Your task to perform on an android device: Open notification settings Image 0: 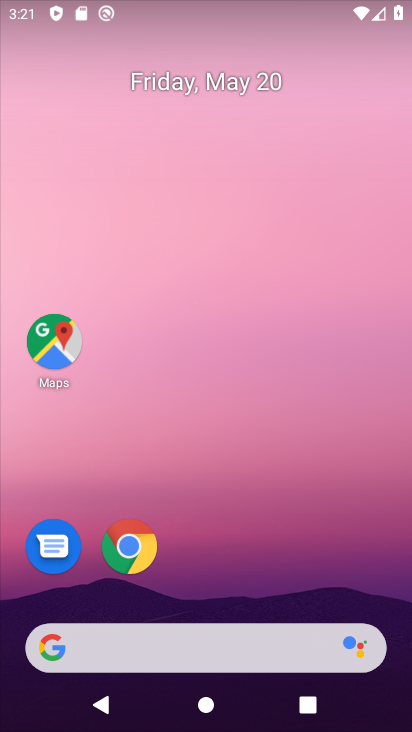
Step 0: drag from (296, 546) to (301, 115)
Your task to perform on an android device: Open notification settings Image 1: 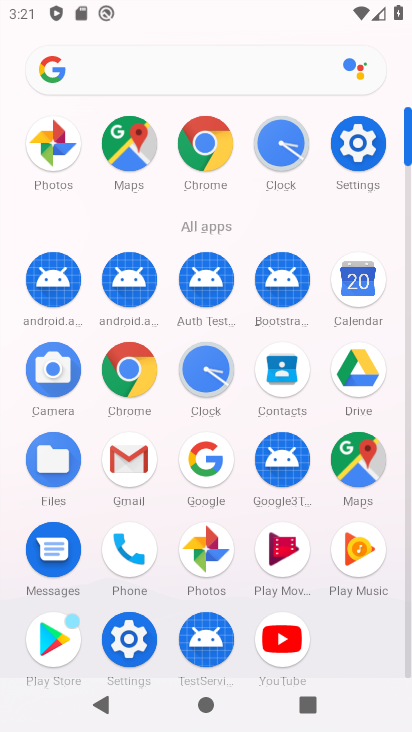
Step 1: click (364, 140)
Your task to perform on an android device: Open notification settings Image 2: 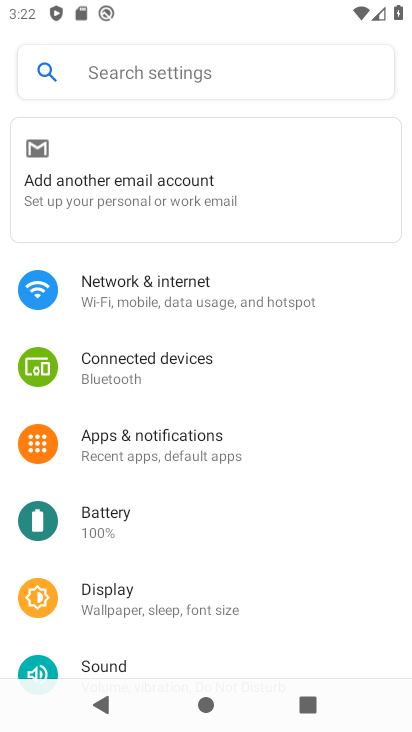
Step 2: click (185, 446)
Your task to perform on an android device: Open notification settings Image 3: 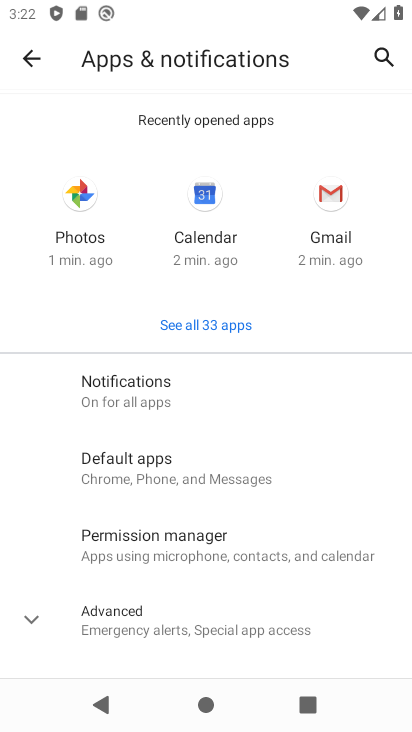
Step 3: click (187, 396)
Your task to perform on an android device: Open notification settings Image 4: 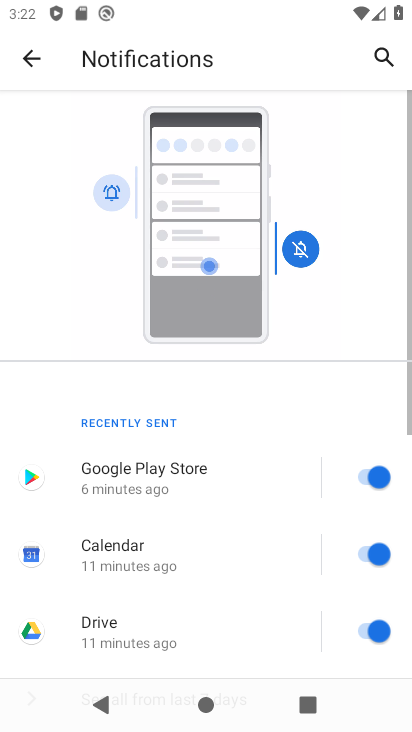
Step 4: task complete